Your task to perform on an android device: Go to Google Image 0: 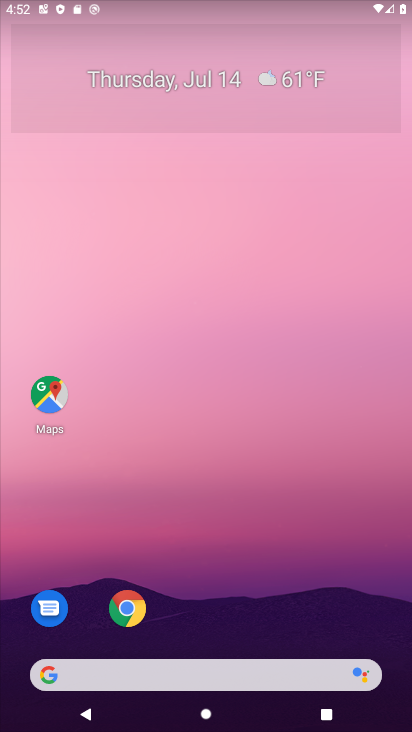
Step 0: drag from (142, 671) to (208, 76)
Your task to perform on an android device: Go to Google Image 1: 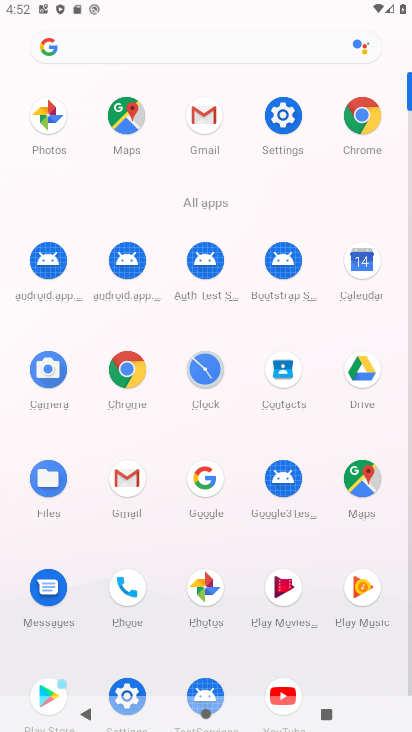
Step 1: click (214, 481)
Your task to perform on an android device: Go to Google Image 2: 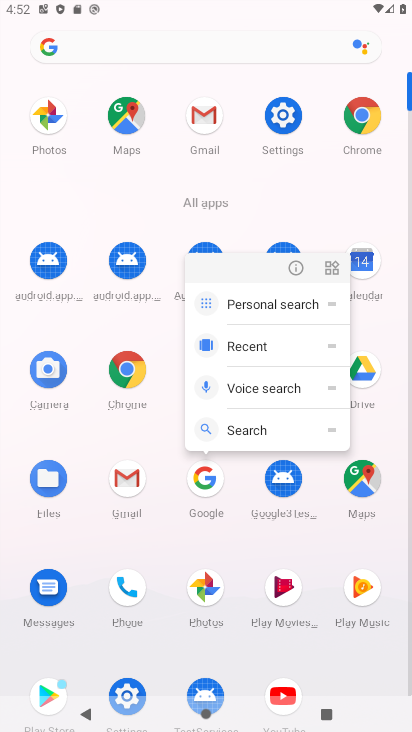
Step 2: click (198, 471)
Your task to perform on an android device: Go to Google Image 3: 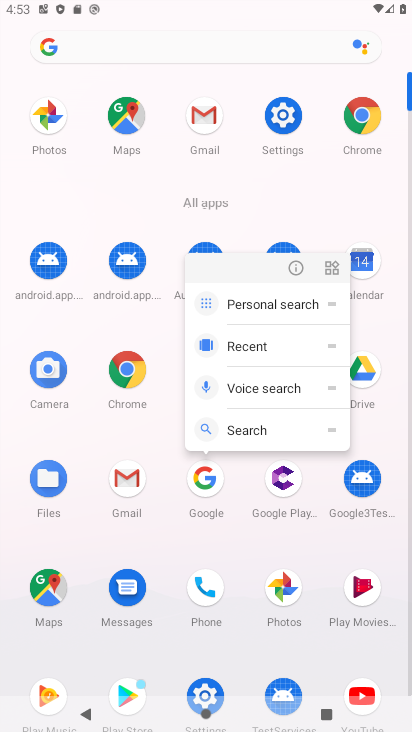
Step 3: click (211, 484)
Your task to perform on an android device: Go to Google Image 4: 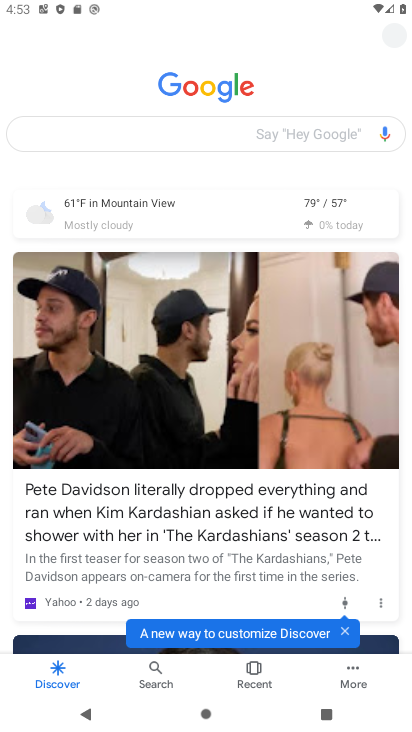
Step 4: task complete